Your task to perform on an android device: When is my next appointment? Image 0: 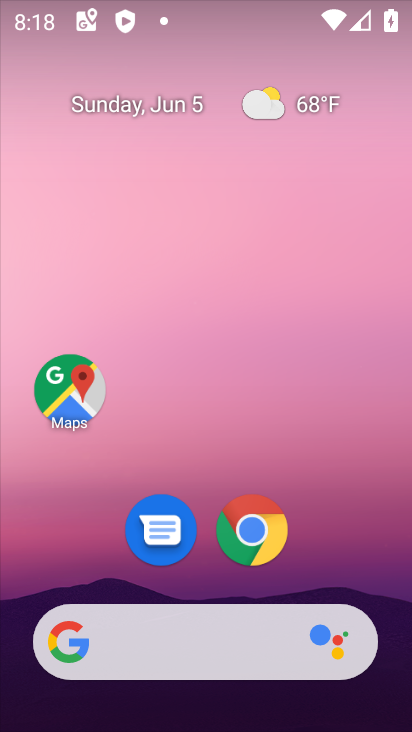
Step 0: drag from (389, 598) to (365, 107)
Your task to perform on an android device: When is my next appointment? Image 1: 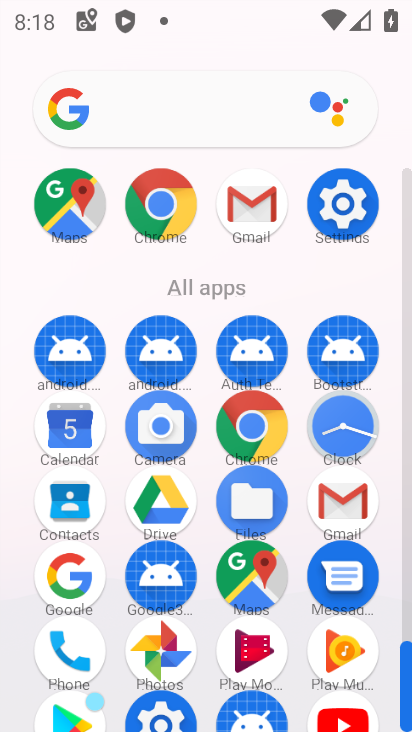
Step 1: drag from (406, 598) to (406, 558)
Your task to perform on an android device: When is my next appointment? Image 2: 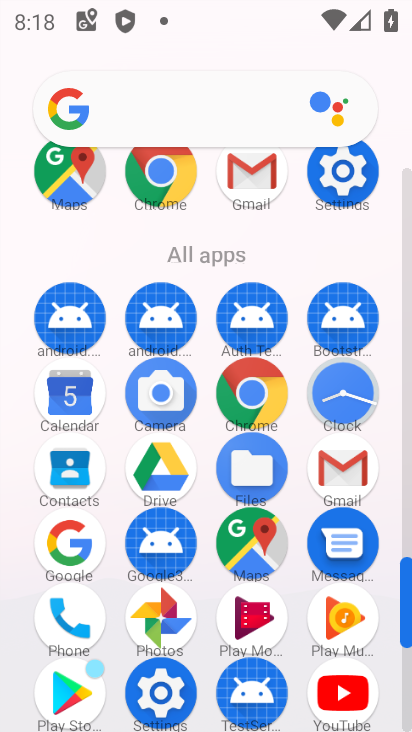
Step 2: click (404, 702)
Your task to perform on an android device: When is my next appointment? Image 3: 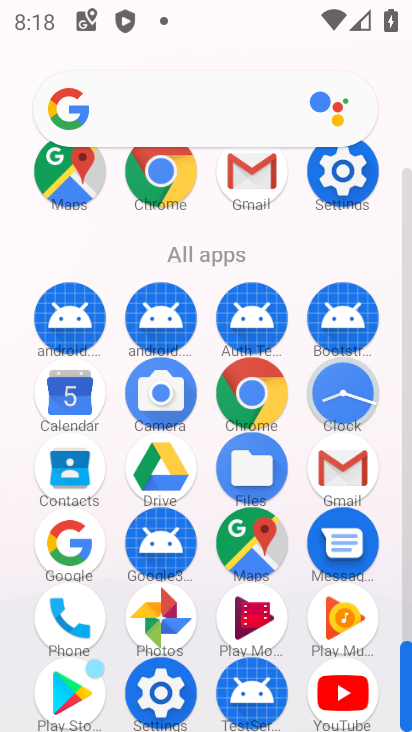
Step 3: click (70, 394)
Your task to perform on an android device: When is my next appointment? Image 4: 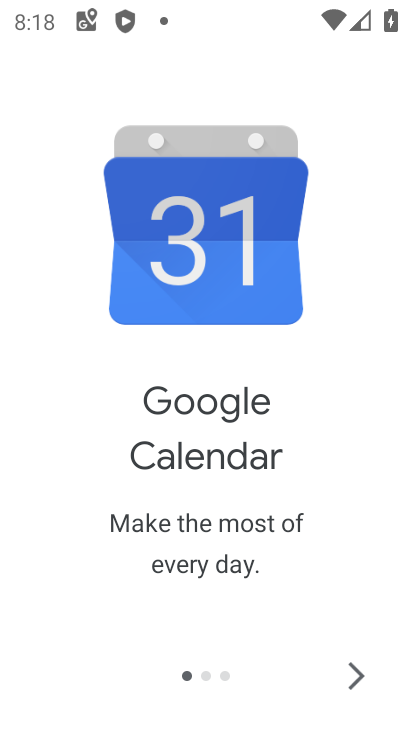
Step 4: click (351, 671)
Your task to perform on an android device: When is my next appointment? Image 5: 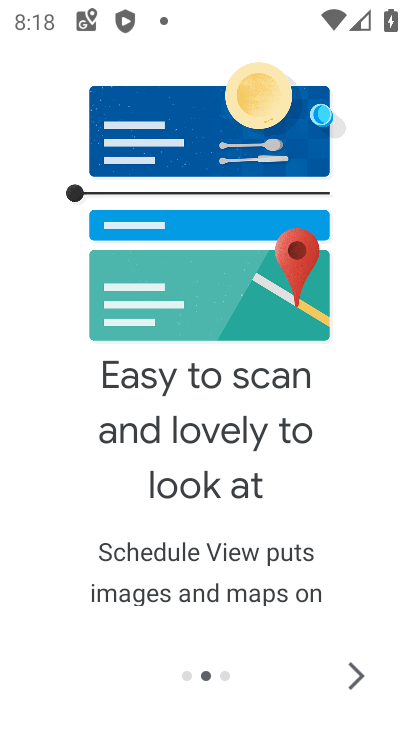
Step 5: click (351, 671)
Your task to perform on an android device: When is my next appointment? Image 6: 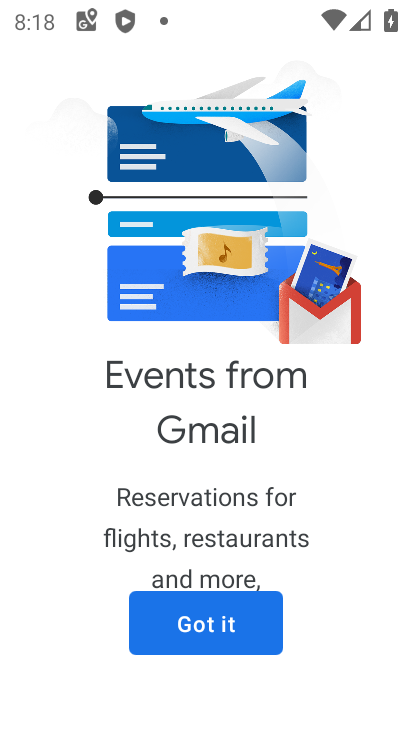
Step 6: click (206, 624)
Your task to perform on an android device: When is my next appointment? Image 7: 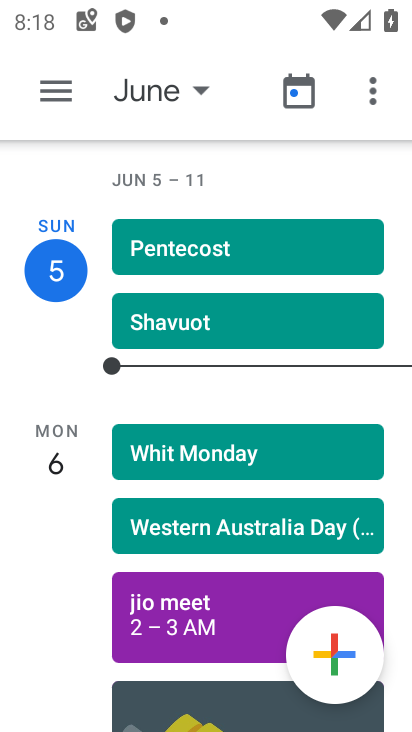
Step 7: click (59, 92)
Your task to perform on an android device: When is my next appointment? Image 8: 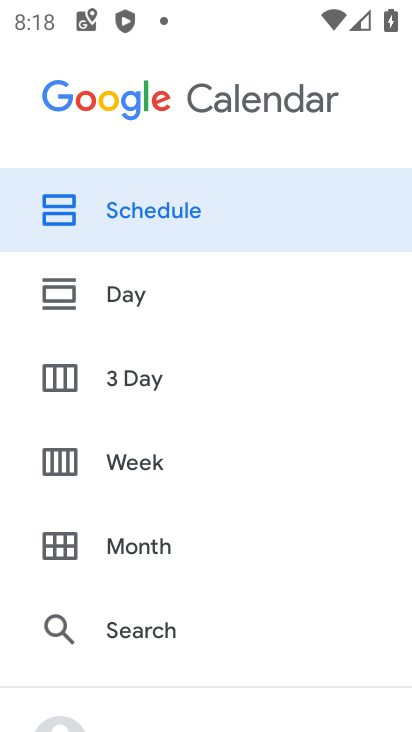
Step 8: click (155, 196)
Your task to perform on an android device: When is my next appointment? Image 9: 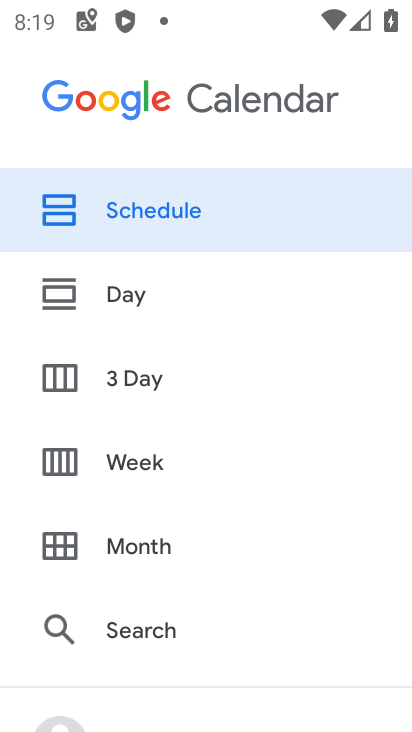
Step 9: click (149, 212)
Your task to perform on an android device: When is my next appointment? Image 10: 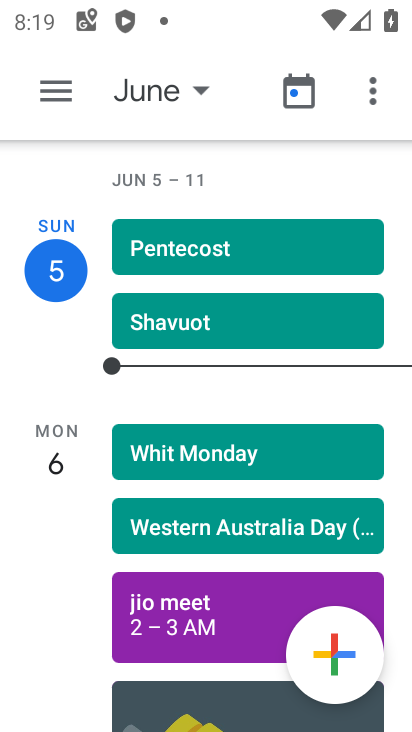
Step 10: task complete